Your task to perform on an android device: Turn off the flashlight Image 0: 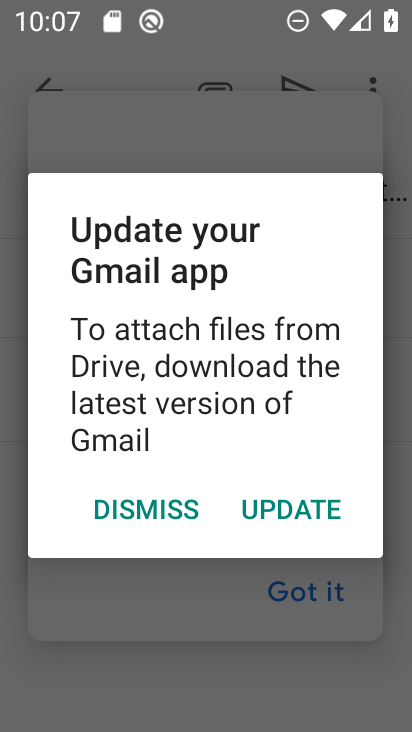
Step 0: press home button
Your task to perform on an android device: Turn off the flashlight Image 1: 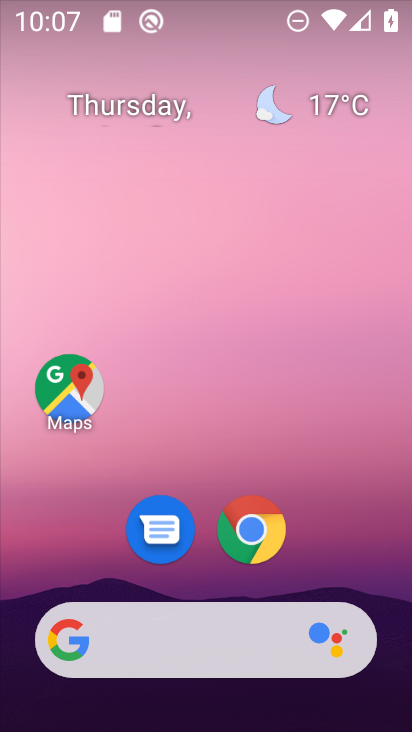
Step 1: drag from (392, 687) to (363, 150)
Your task to perform on an android device: Turn off the flashlight Image 2: 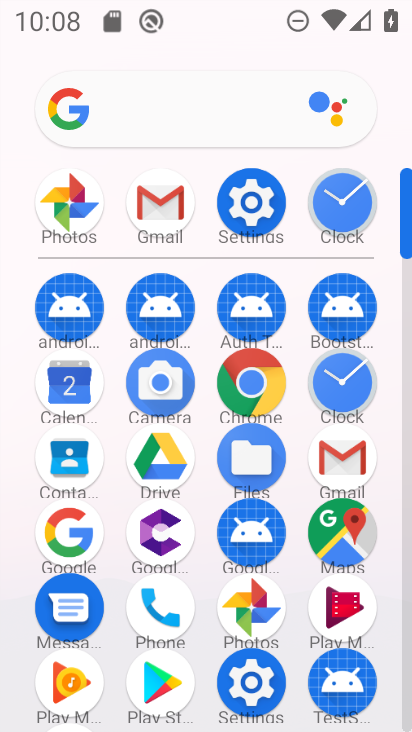
Step 2: click (249, 208)
Your task to perform on an android device: Turn off the flashlight Image 3: 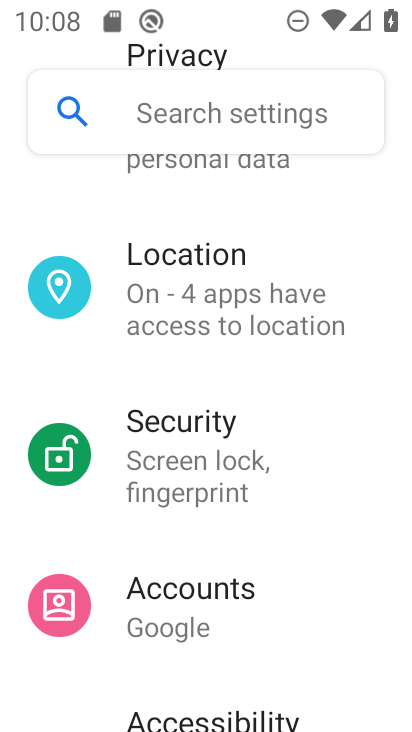
Step 3: drag from (323, 636) to (309, 267)
Your task to perform on an android device: Turn off the flashlight Image 4: 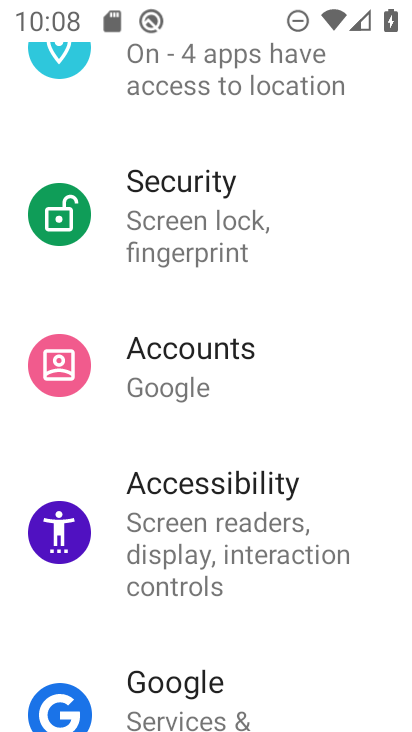
Step 4: drag from (280, 158) to (302, 593)
Your task to perform on an android device: Turn off the flashlight Image 5: 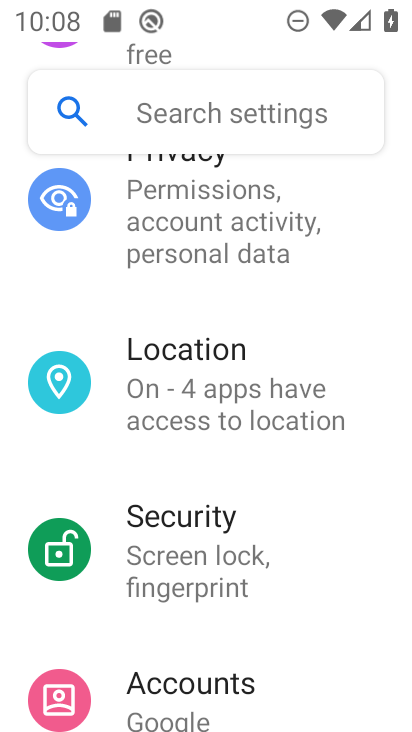
Step 5: drag from (264, 469) to (268, 590)
Your task to perform on an android device: Turn off the flashlight Image 6: 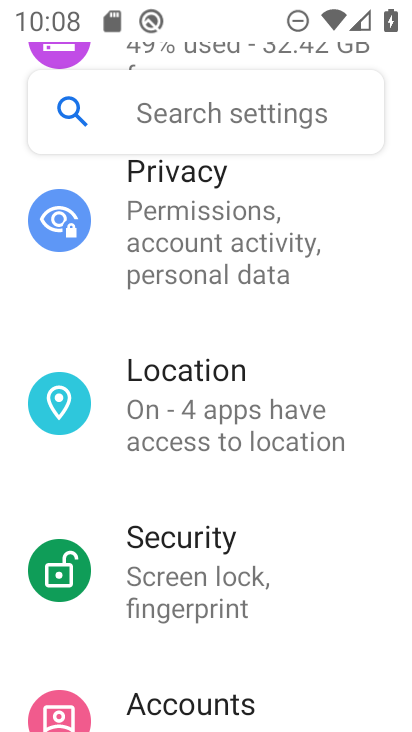
Step 6: drag from (326, 168) to (309, 679)
Your task to perform on an android device: Turn off the flashlight Image 7: 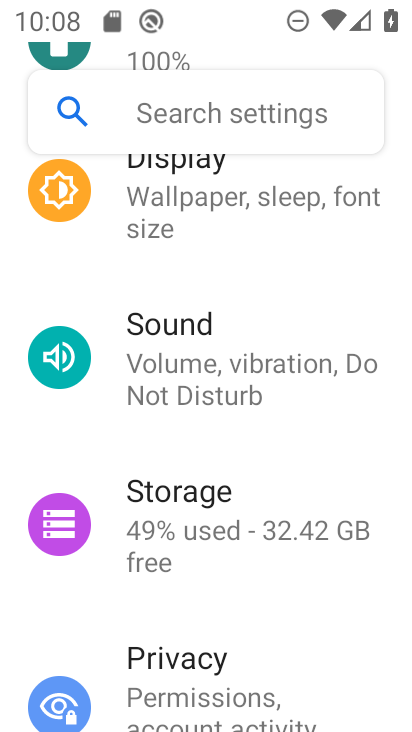
Step 7: click (215, 194)
Your task to perform on an android device: Turn off the flashlight Image 8: 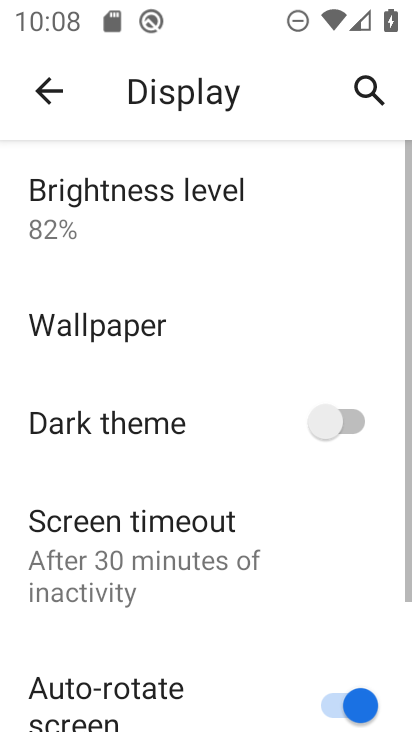
Step 8: task complete